Your task to perform on an android device: Open Yahoo.com Image 0: 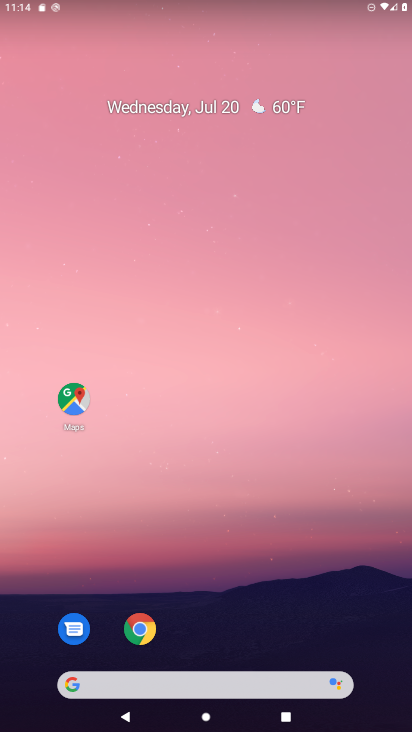
Step 0: click (151, 639)
Your task to perform on an android device: Open Yahoo.com Image 1: 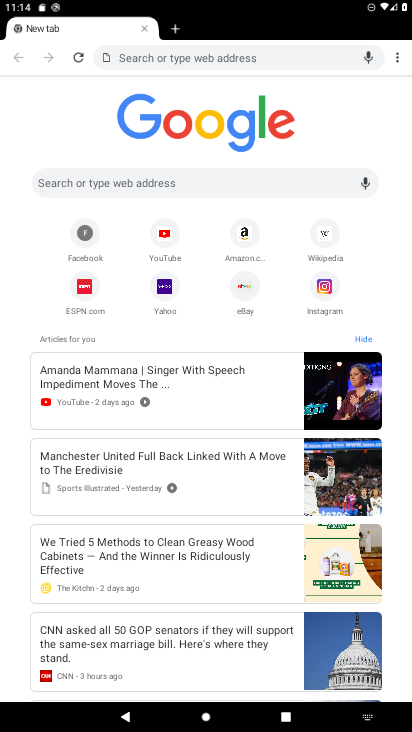
Step 1: click (161, 279)
Your task to perform on an android device: Open Yahoo.com Image 2: 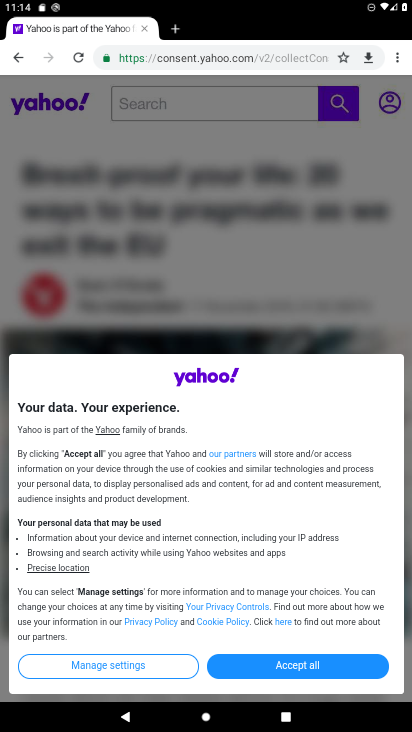
Step 2: task complete